Your task to perform on an android device: Open Google Maps and go to "Timeline" Image 0: 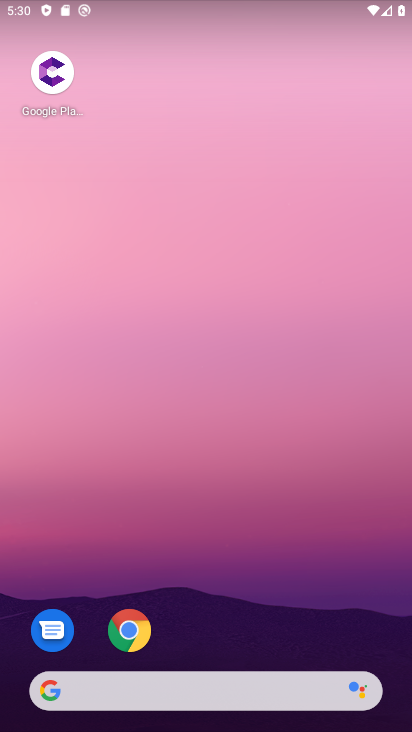
Step 0: drag from (25, 524) to (403, 541)
Your task to perform on an android device: Open Google Maps and go to "Timeline" Image 1: 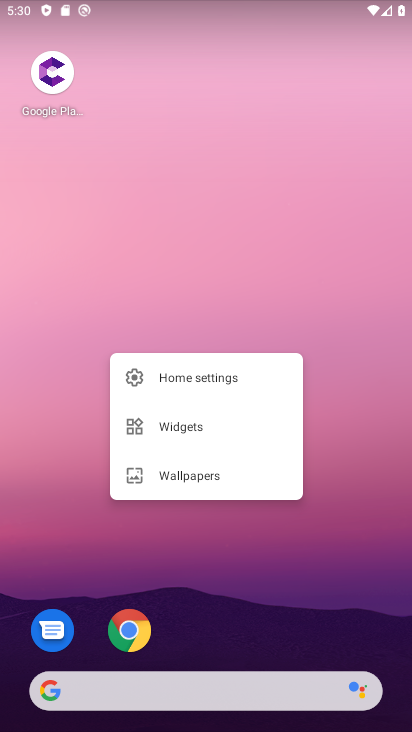
Step 1: click (77, 546)
Your task to perform on an android device: Open Google Maps and go to "Timeline" Image 2: 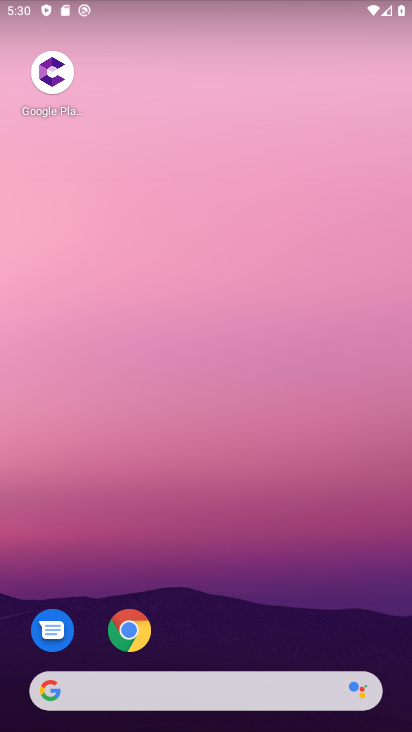
Step 2: drag from (77, 546) to (365, 590)
Your task to perform on an android device: Open Google Maps and go to "Timeline" Image 3: 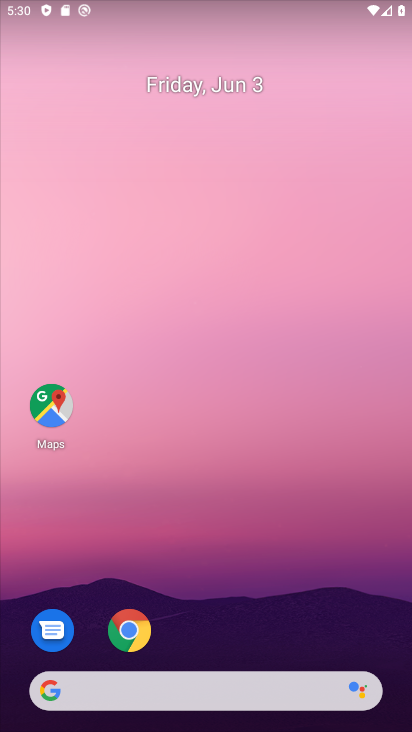
Step 3: drag from (67, 527) to (159, 524)
Your task to perform on an android device: Open Google Maps and go to "Timeline" Image 4: 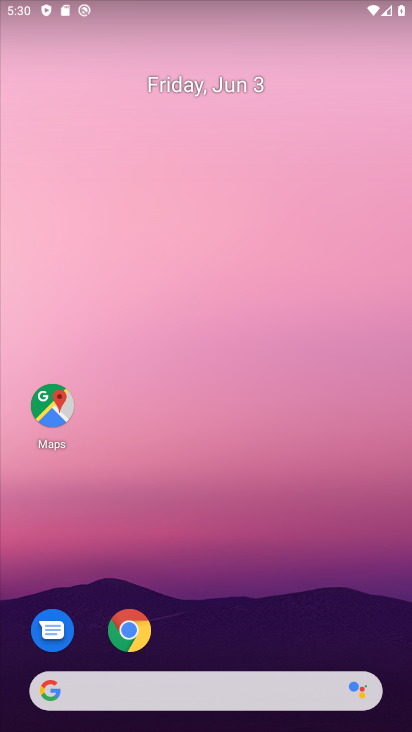
Step 4: click (69, 400)
Your task to perform on an android device: Open Google Maps and go to "Timeline" Image 5: 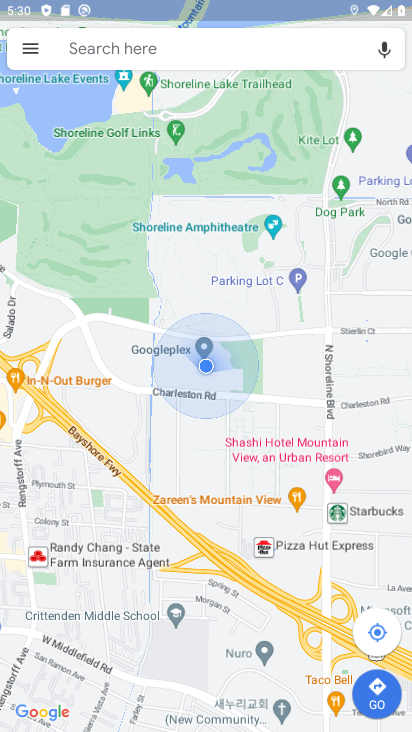
Step 5: click (40, 64)
Your task to perform on an android device: Open Google Maps and go to "Timeline" Image 6: 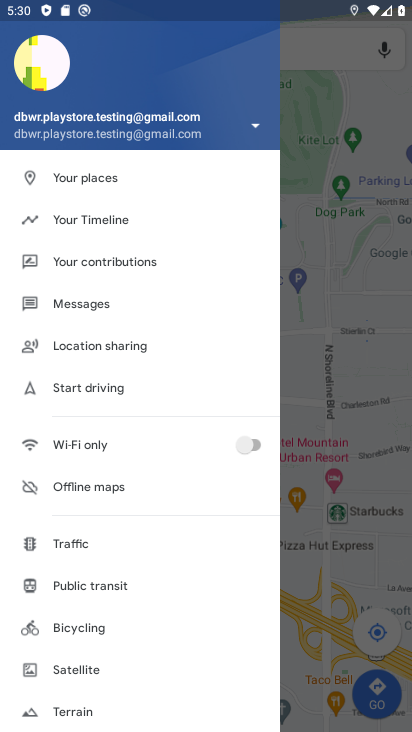
Step 6: click (68, 217)
Your task to perform on an android device: Open Google Maps and go to "Timeline" Image 7: 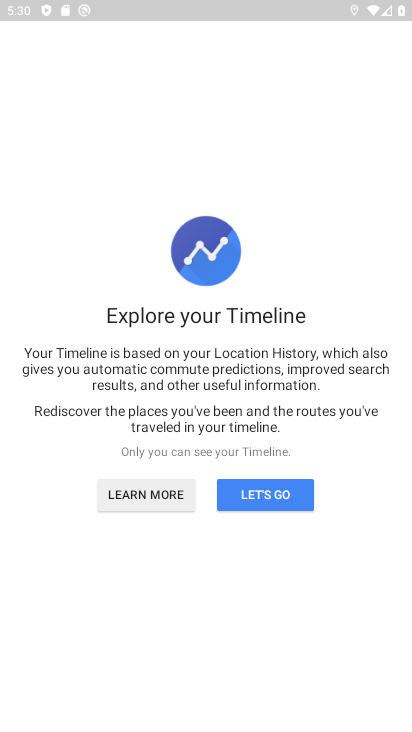
Step 7: click (244, 494)
Your task to perform on an android device: Open Google Maps and go to "Timeline" Image 8: 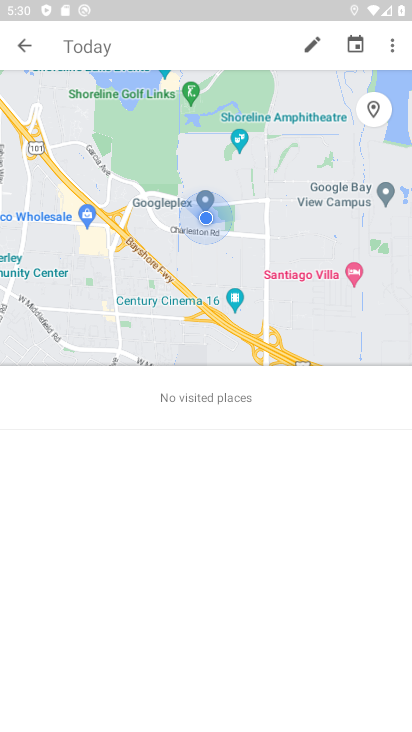
Step 8: task complete